Your task to perform on an android device: toggle translation in the chrome app Image 0: 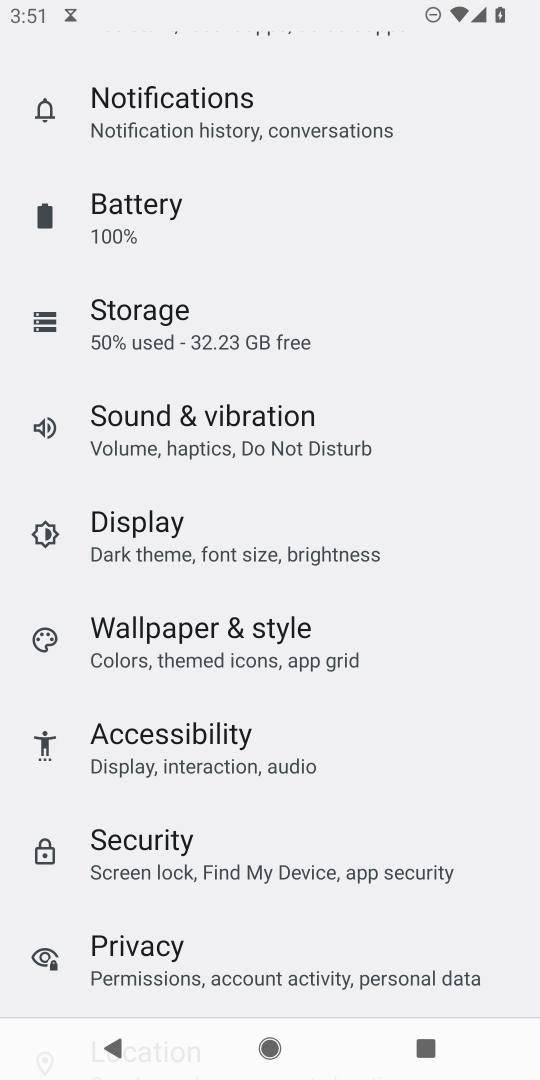
Step 0: press home button
Your task to perform on an android device: toggle translation in the chrome app Image 1: 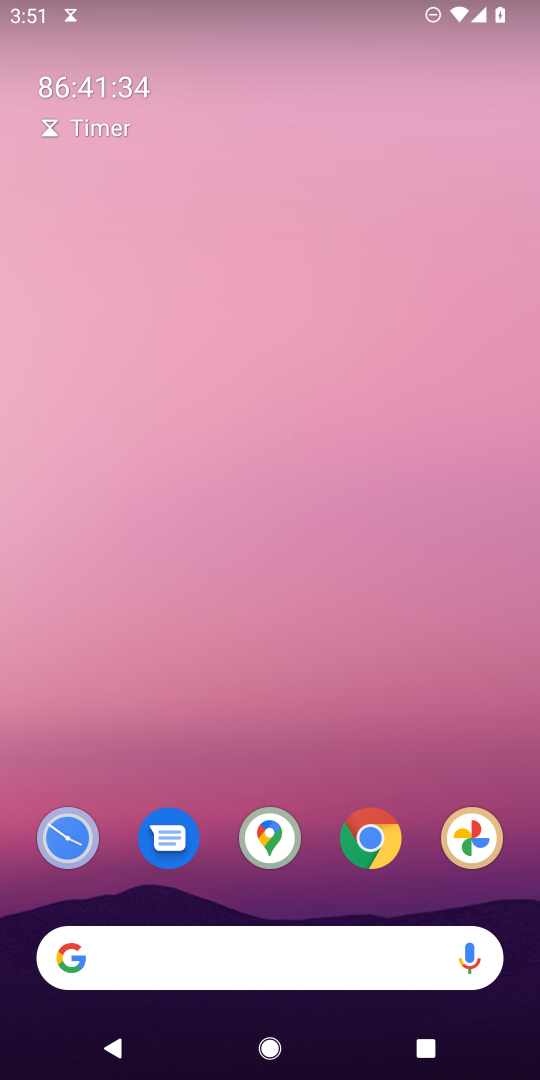
Step 1: click (381, 844)
Your task to perform on an android device: toggle translation in the chrome app Image 2: 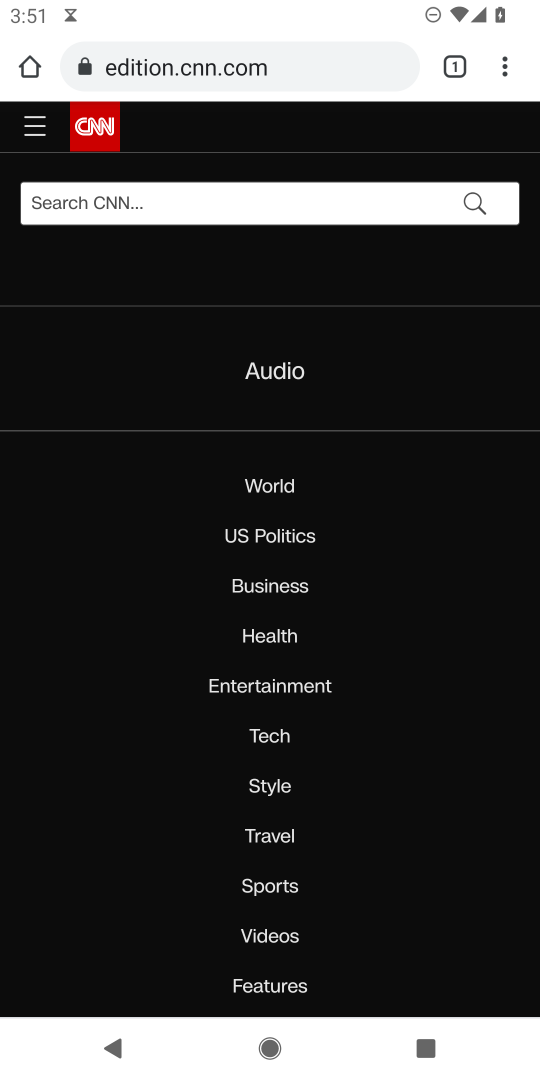
Step 2: click (509, 61)
Your task to perform on an android device: toggle translation in the chrome app Image 3: 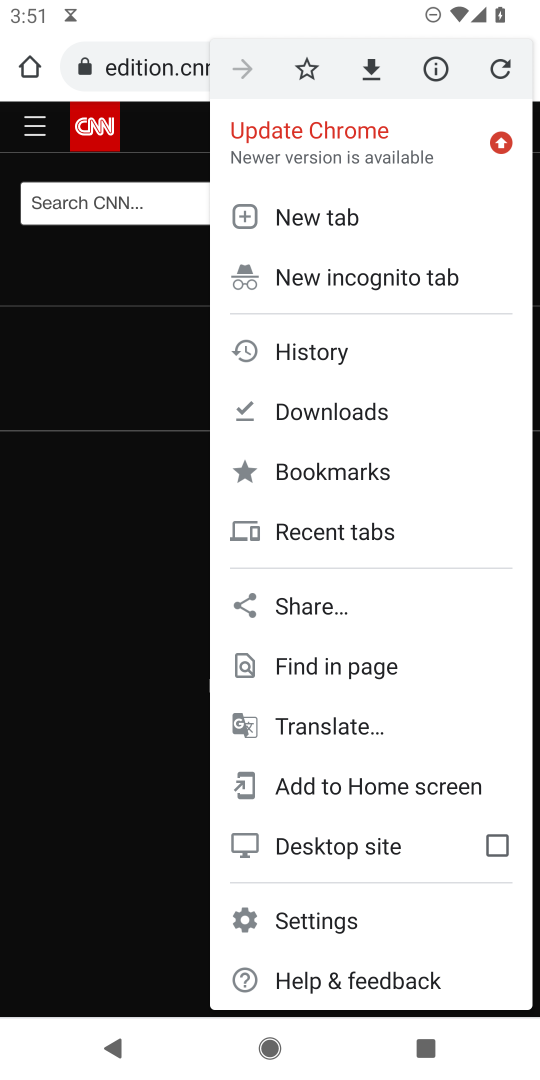
Step 3: click (353, 918)
Your task to perform on an android device: toggle translation in the chrome app Image 4: 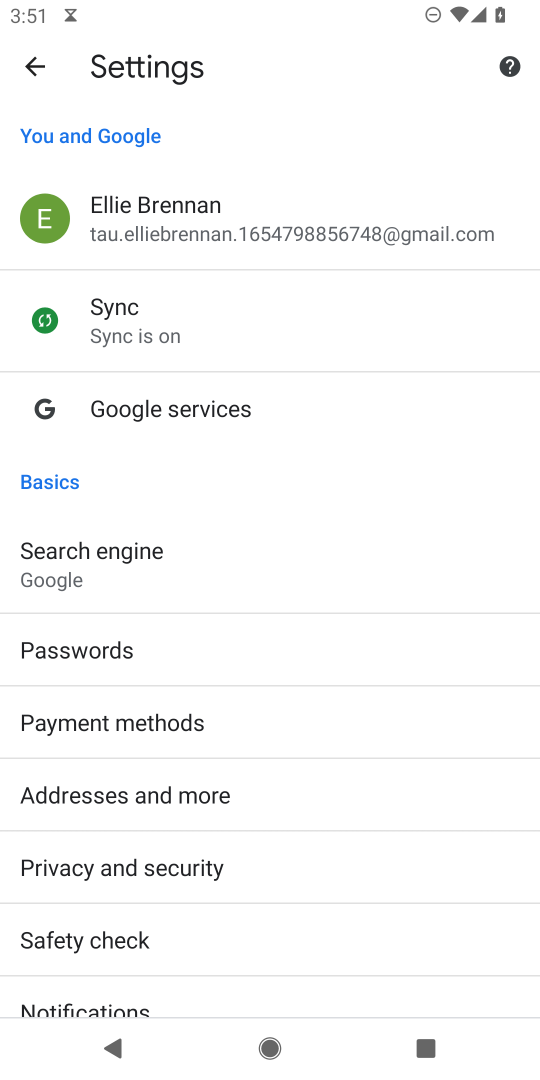
Step 4: drag from (353, 918) to (317, 521)
Your task to perform on an android device: toggle translation in the chrome app Image 5: 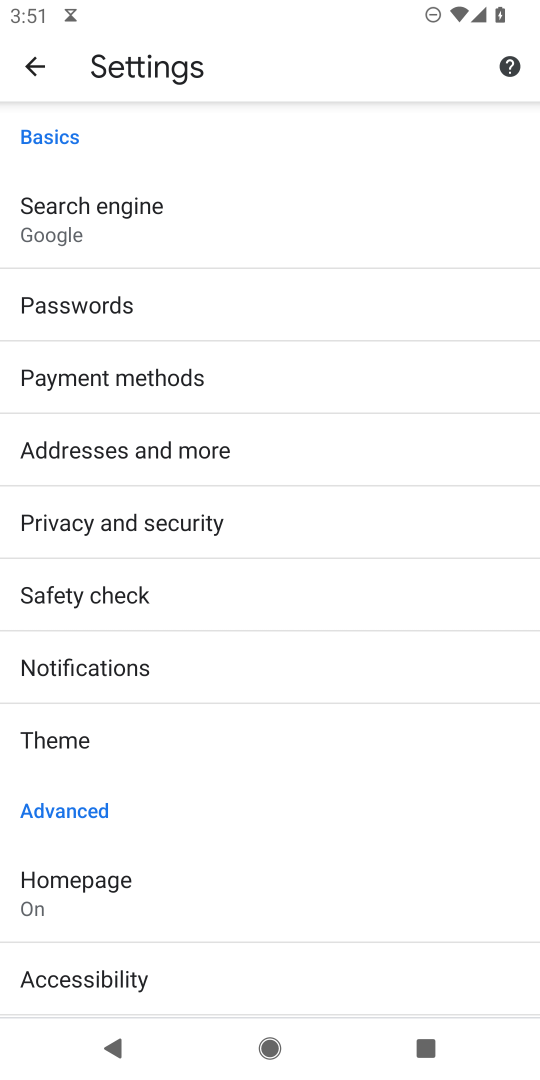
Step 5: drag from (316, 744) to (343, 250)
Your task to perform on an android device: toggle translation in the chrome app Image 6: 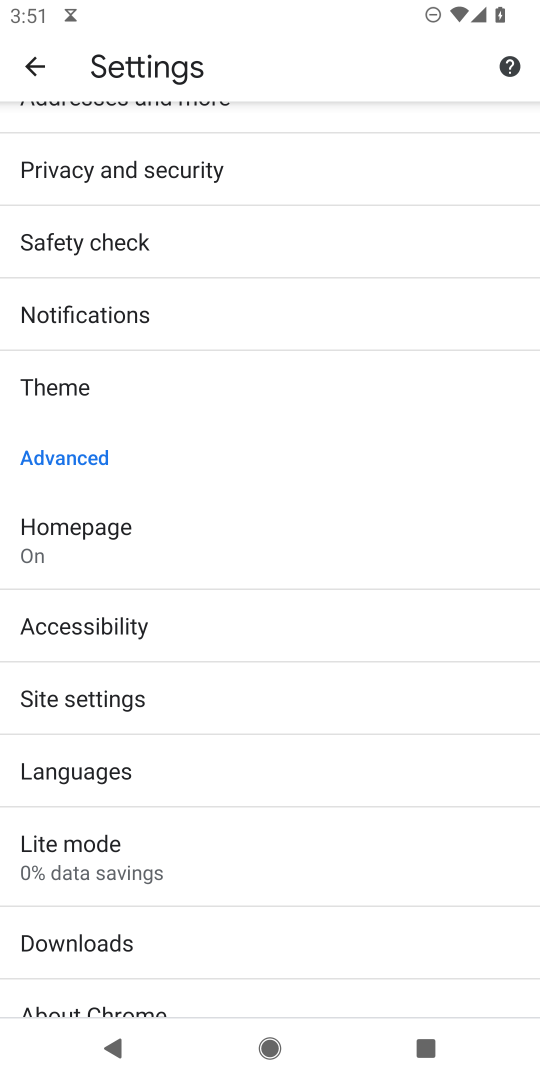
Step 6: click (285, 745)
Your task to perform on an android device: toggle translation in the chrome app Image 7: 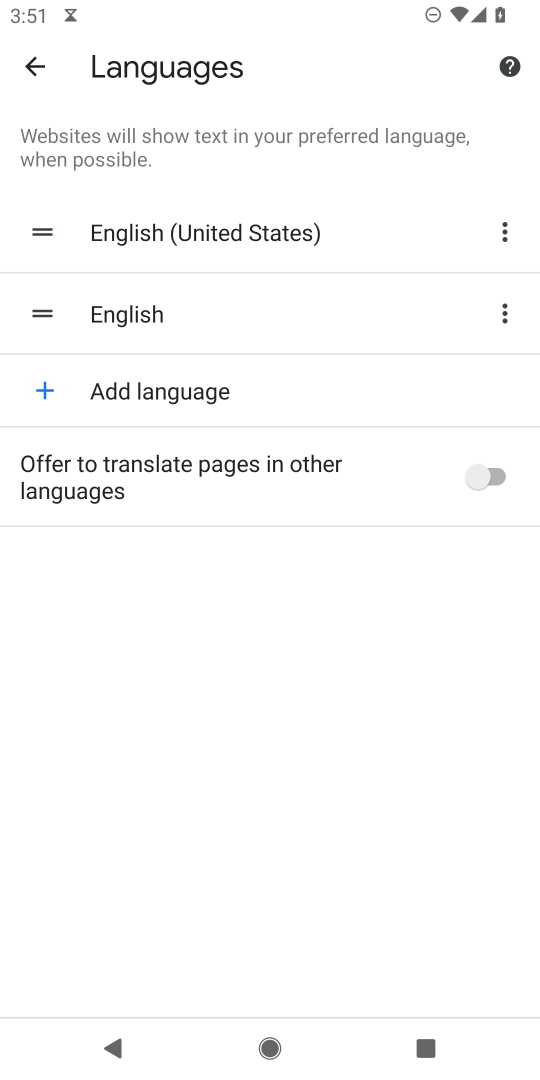
Step 7: click (514, 474)
Your task to perform on an android device: toggle translation in the chrome app Image 8: 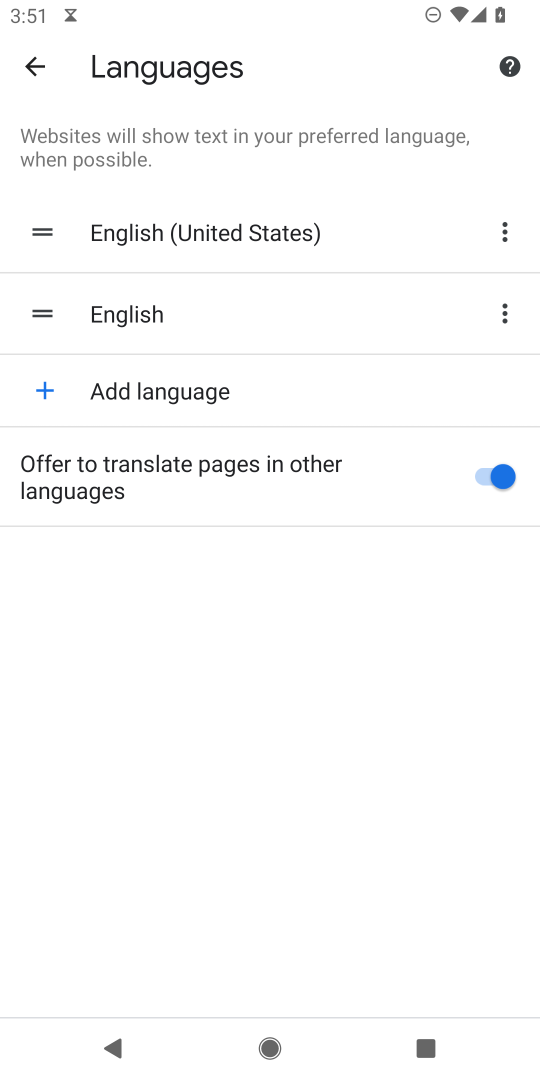
Step 8: task complete